Your task to perform on an android device: Where can I buy a nice beach blanket? Image 0: 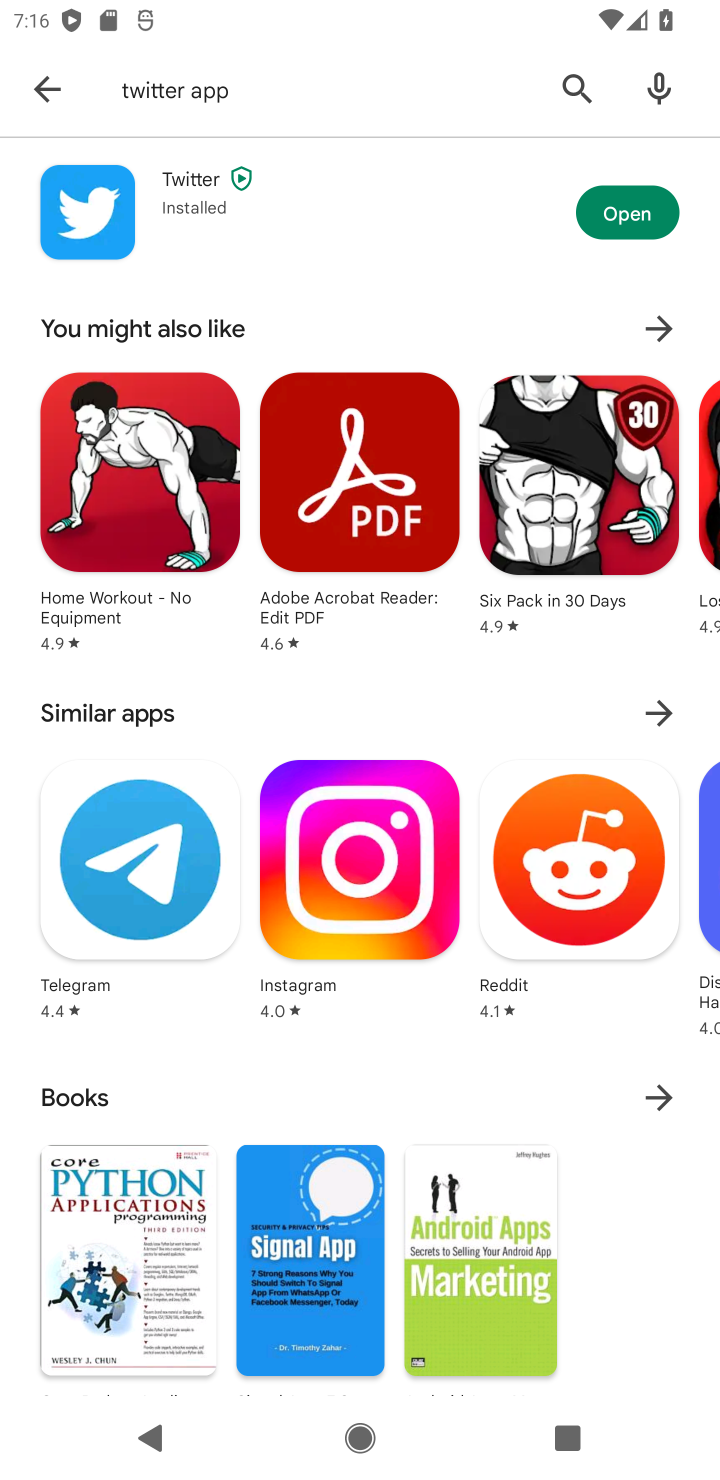
Step 0: press home button
Your task to perform on an android device: Where can I buy a nice beach blanket? Image 1: 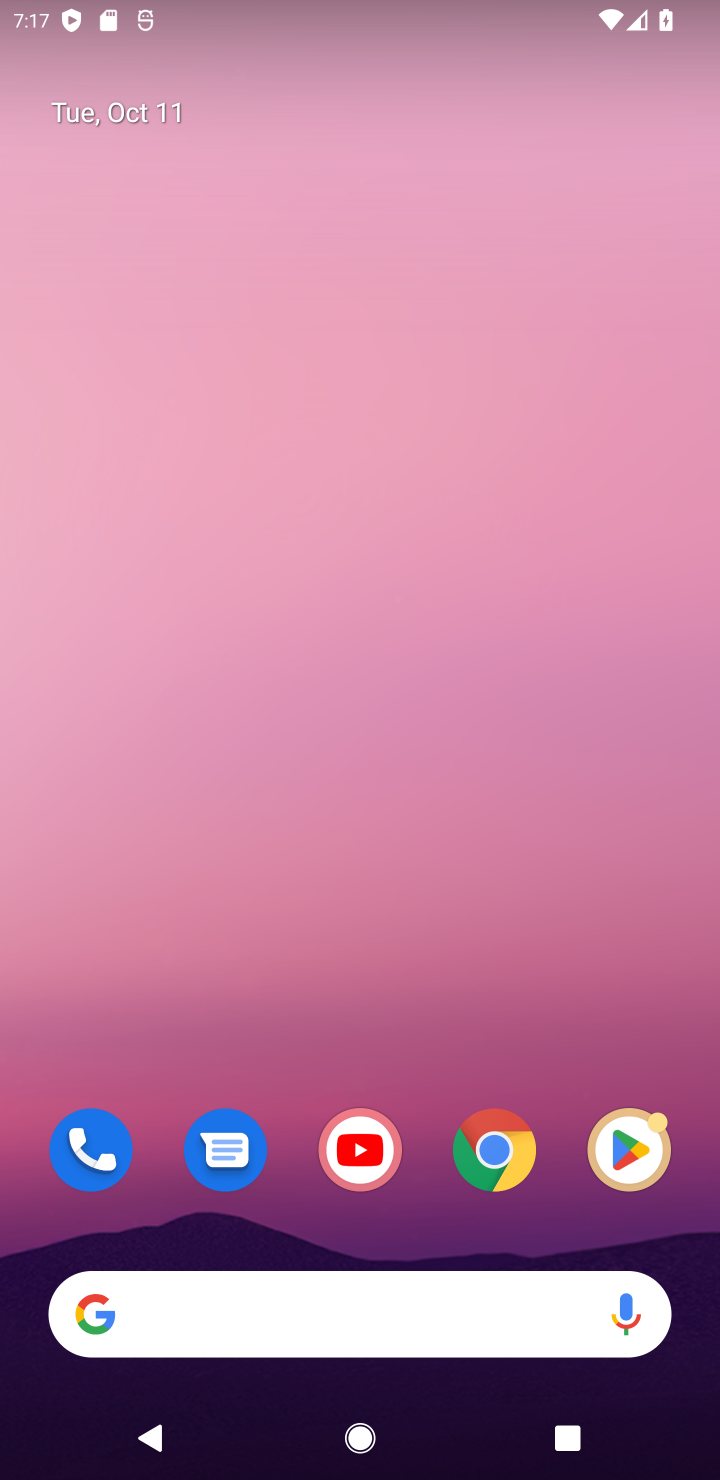
Step 1: click (488, 1155)
Your task to perform on an android device: Where can I buy a nice beach blanket? Image 2: 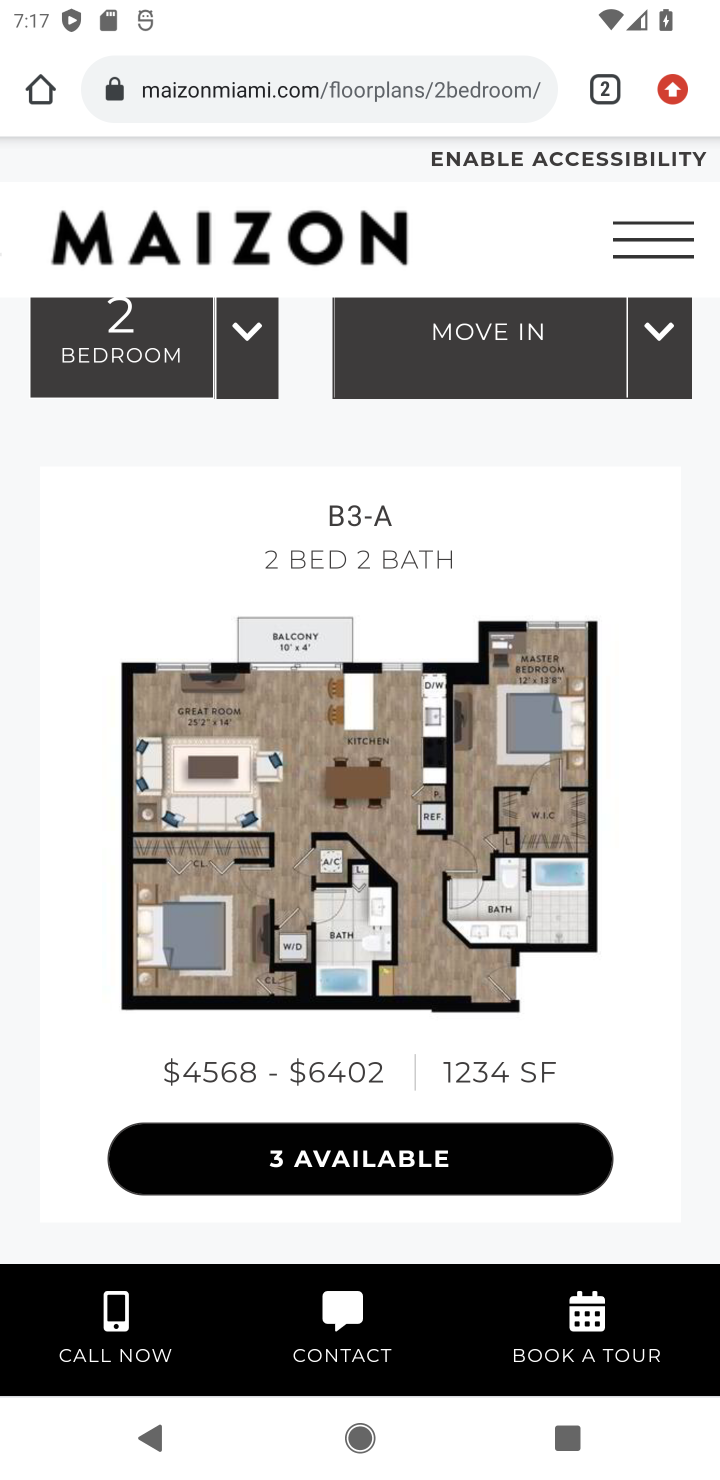
Step 2: click (334, 95)
Your task to perform on an android device: Where can I buy a nice beach blanket? Image 3: 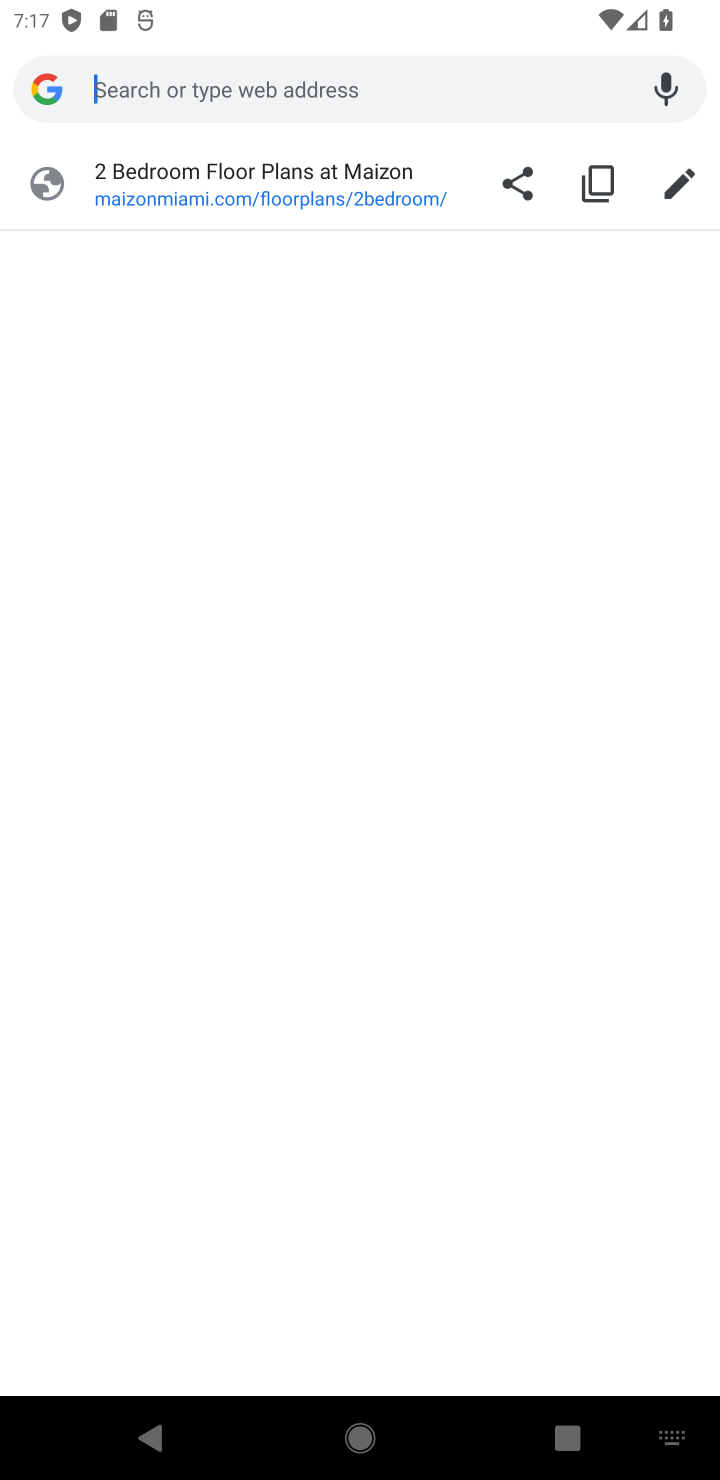
Step 3: type "nice beach blanket"
Your task to perform on an android device: Where can I buy a nice beach blanket? Image 4: 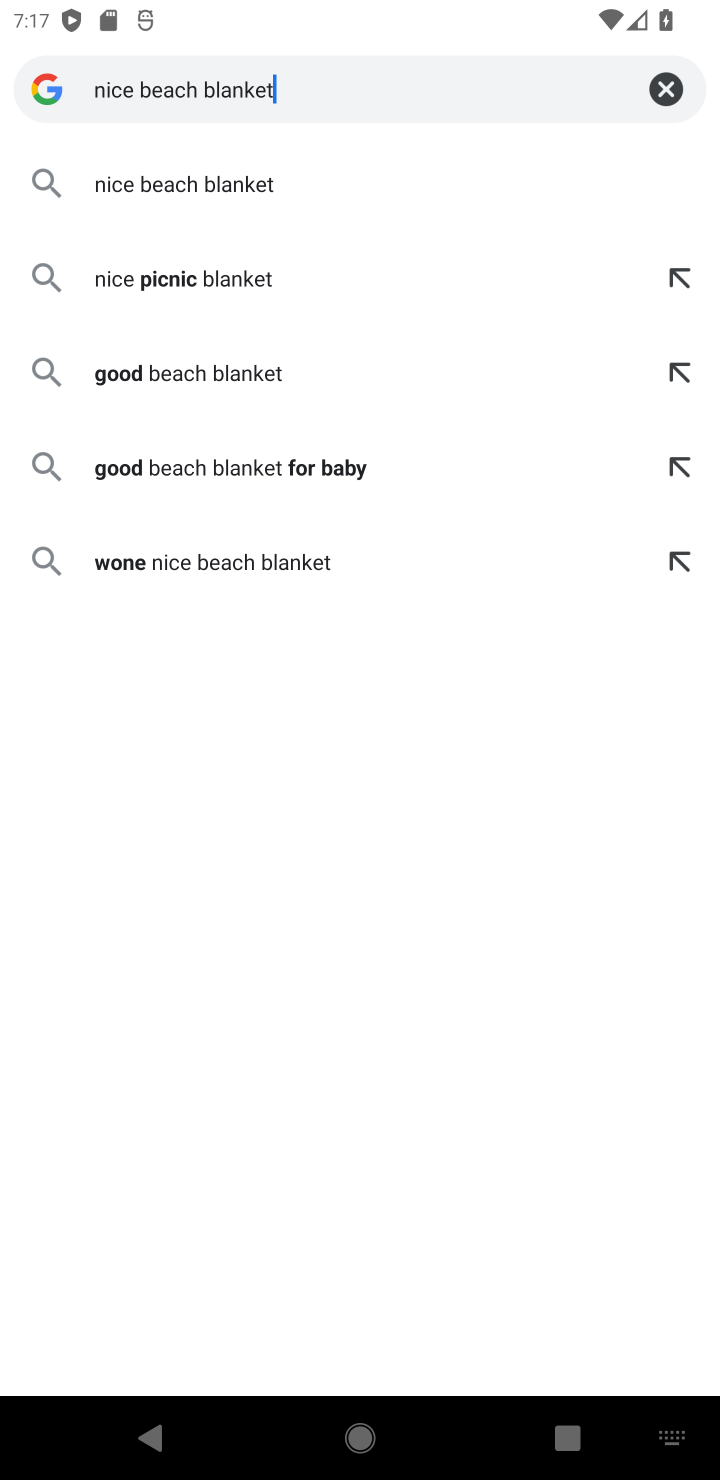
Step 4: click (216, 192)
Your task to perform on an android device: Where can I buy a nice beach blanket? Image 5: 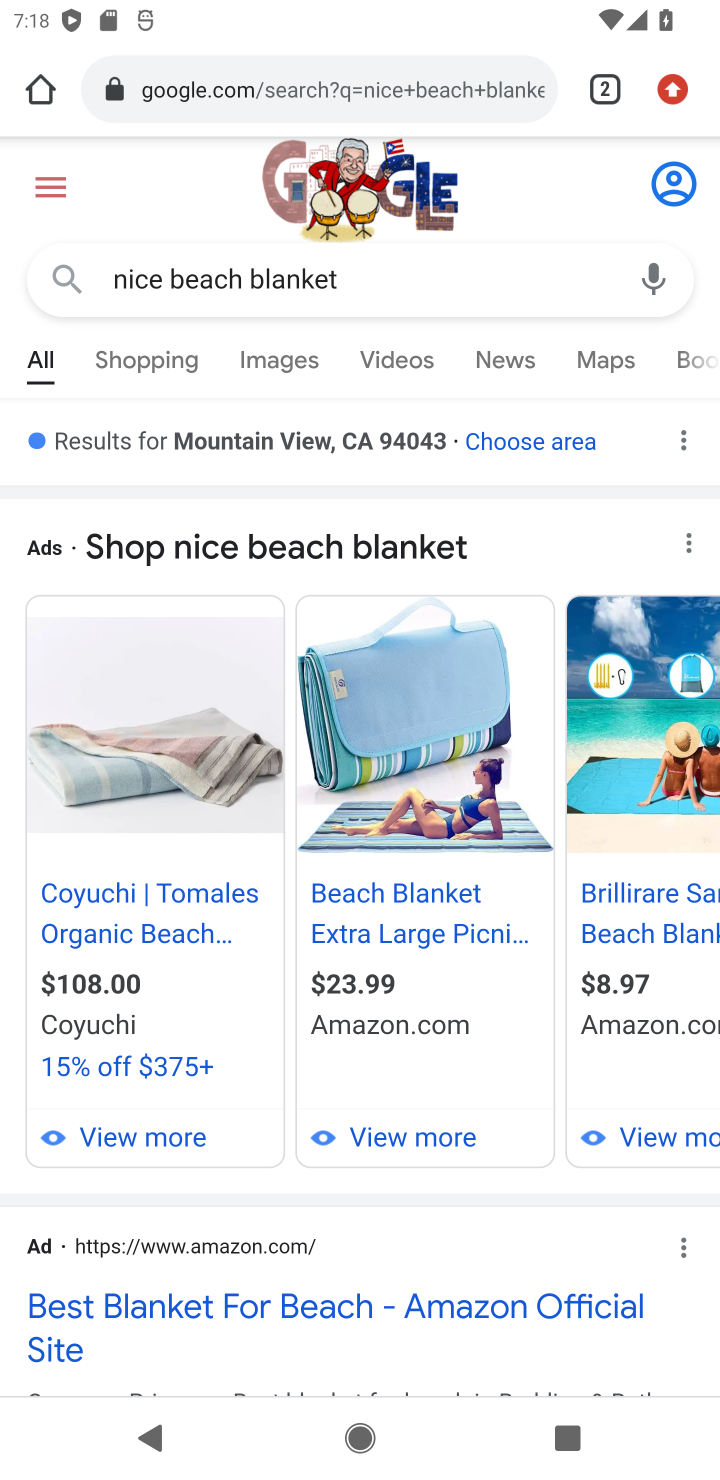
Step 5: task complete